Your task to perform on an android device: find snoozed emails in the gmail app Image 0: 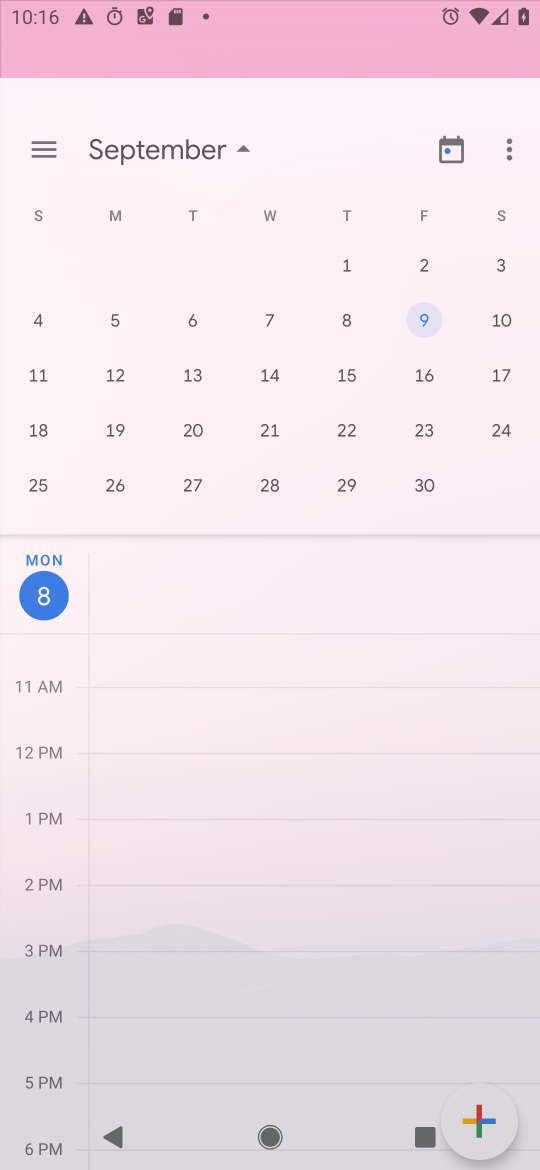
Step 0: click (317, 857)
Your task to perform on an android device: find snoozed emails in the gmail app Image 1: 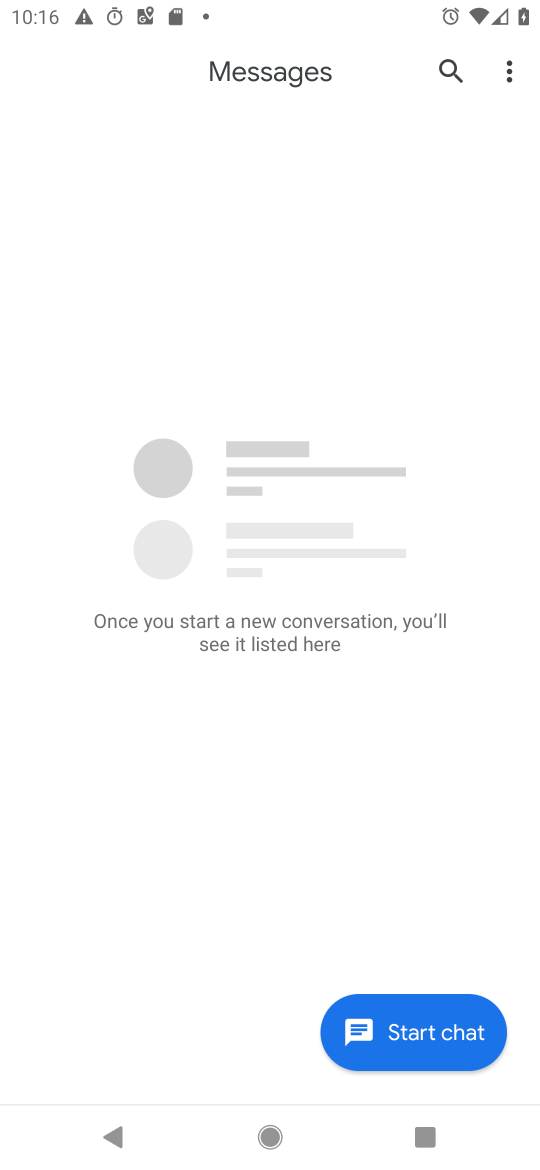
Step 1: press home button
Your task to perform on an android device: find snoozed emails in the gmail app Image 2: 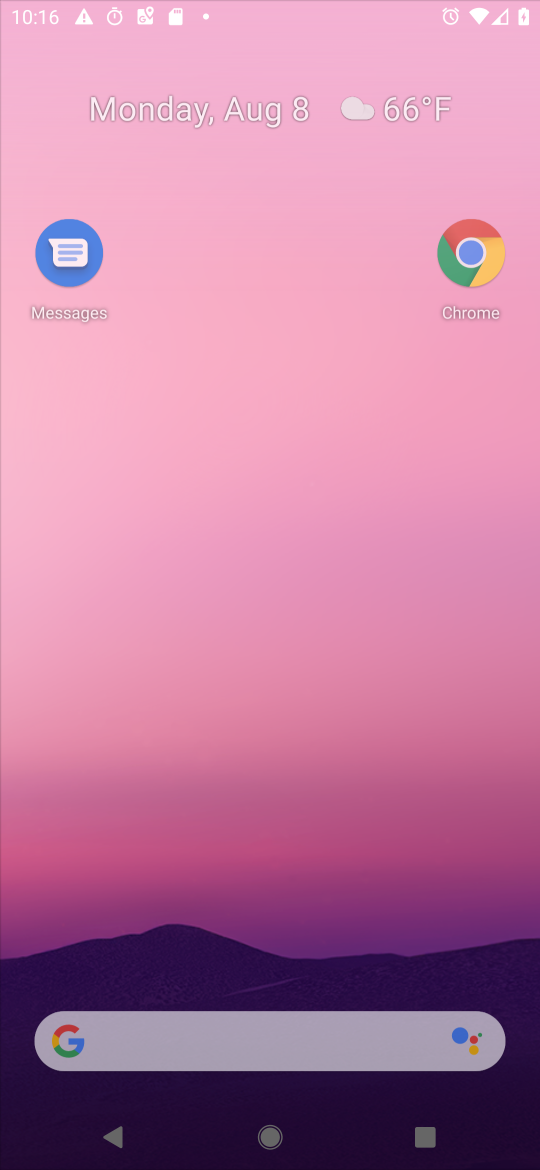
Step 2: drag from (249, 1039) to (222, 300)
Your task to perform on an android device: find snoozed emails in the gmail app Image 3: 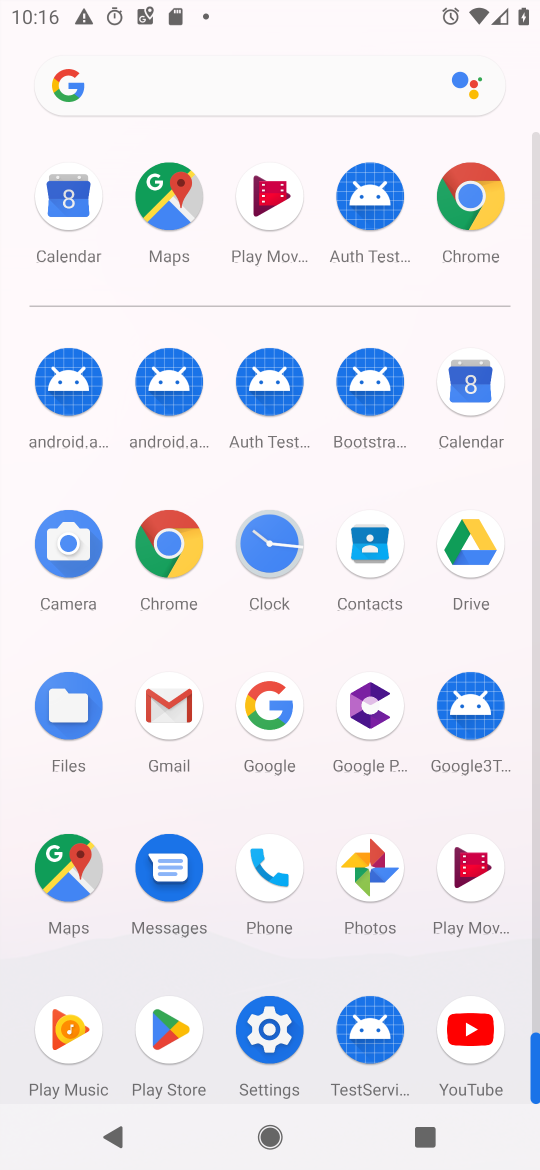
Step 3: click (185, 694)
Your task to perform on an android device: find snoozed emails in the gmail app Image 4: 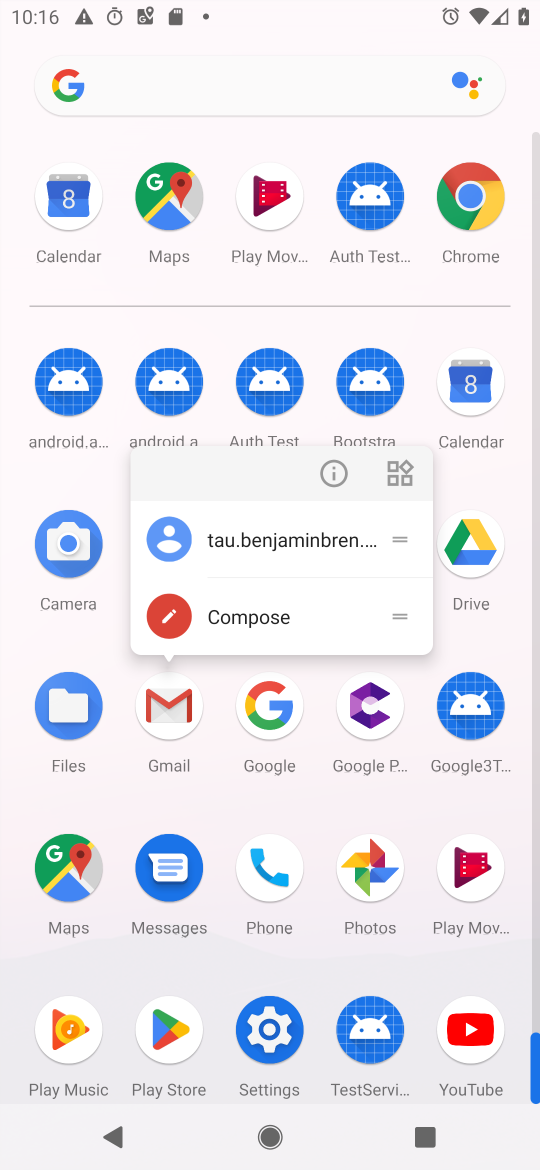
Step 4: click (338, 463)
Your task to perform on an android device: find snoozed emails in the gmail app Image 5: 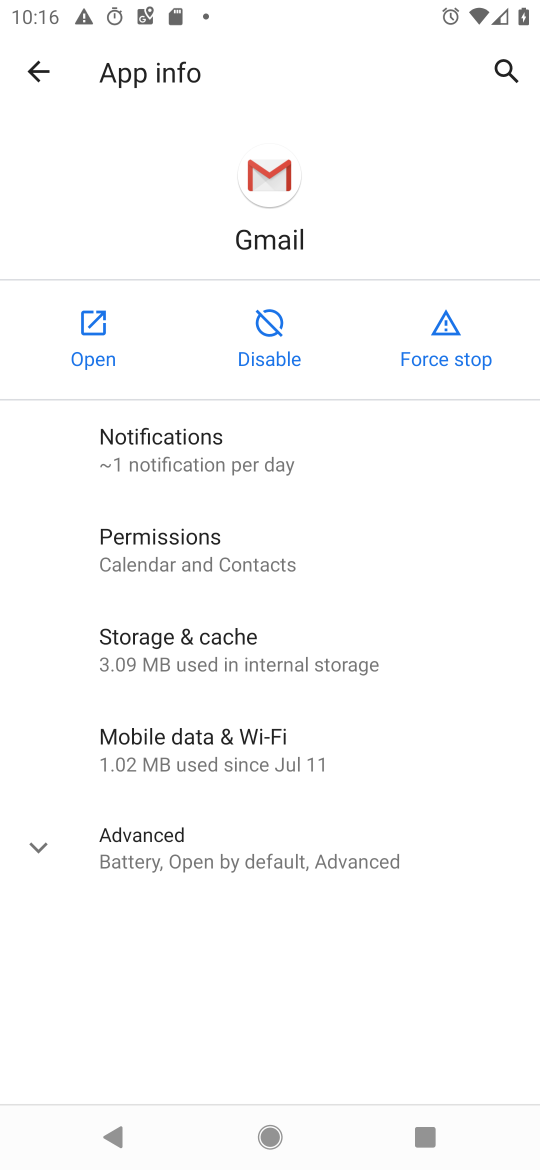
Step 5: click (86, 321)
Your task to perform on an android device: find snoozed emails in the gmail app Image 6: 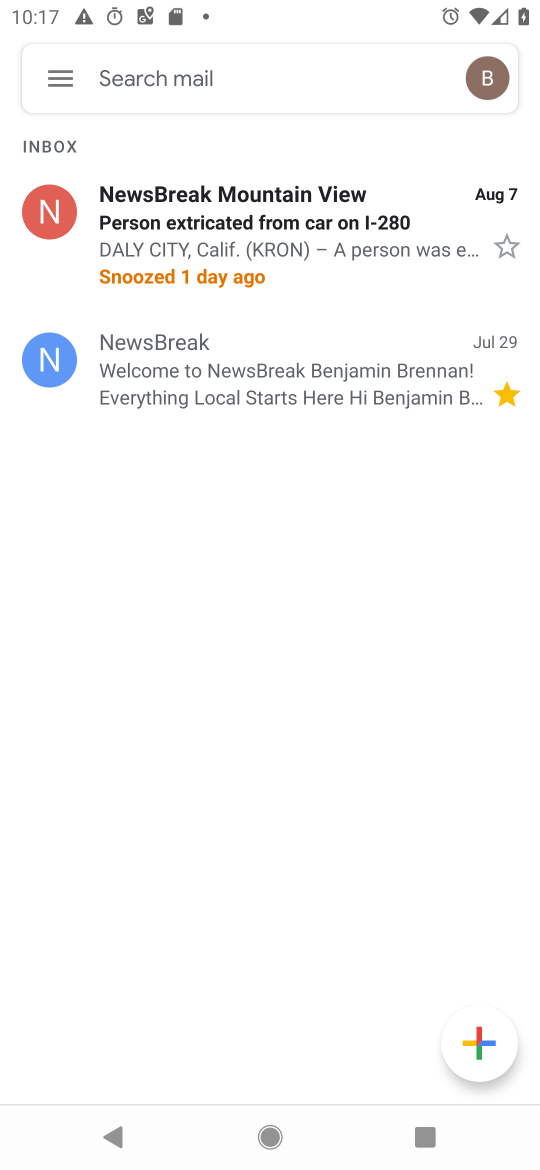
Step 6: click (59, 68)
Your task to perform on an android device: find snoozed emails in the gmail app Image 7: 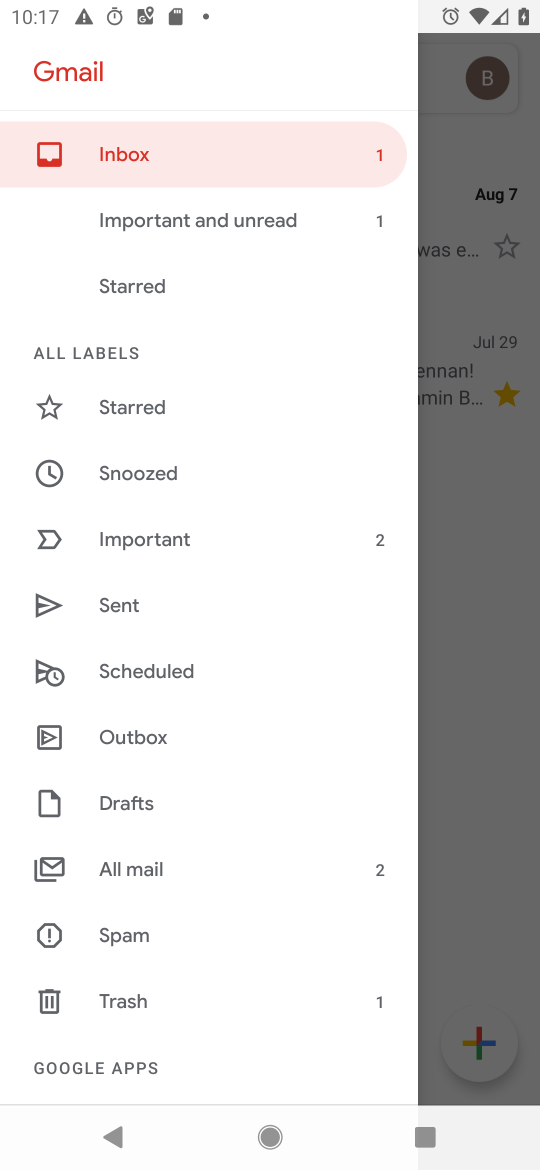
Step 7: click (142, 456)
Your task to perform on an android device: find snoozed emails in the gmail app Image 8: 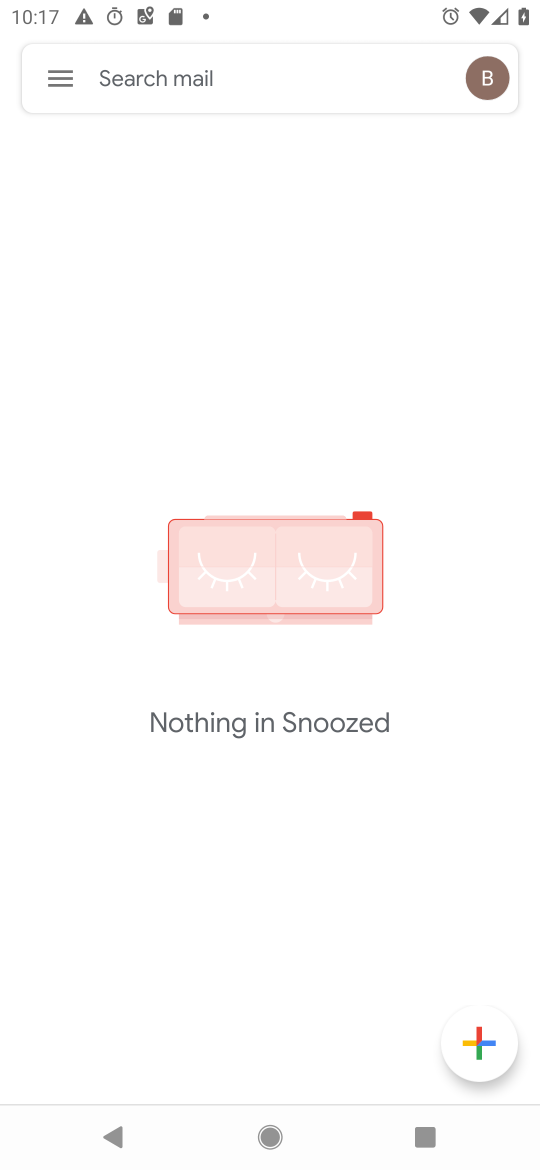
Step 8: task complete